Your task to perform on an android device: Find coffee shops on Maps Image 0: 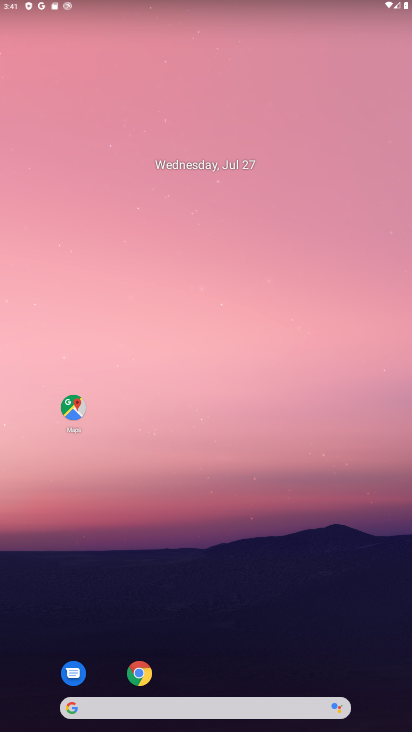
Step 0: click (69, 408)
Your task to perform on an android device: Find coffee shops on Maps Image 1: 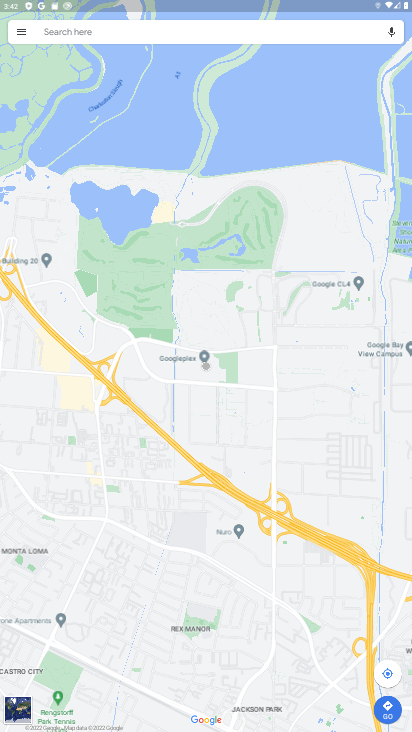
Step 1: click (156, 29)
Your task to perform on an android device: Find coffee shops on Maps Image 2: 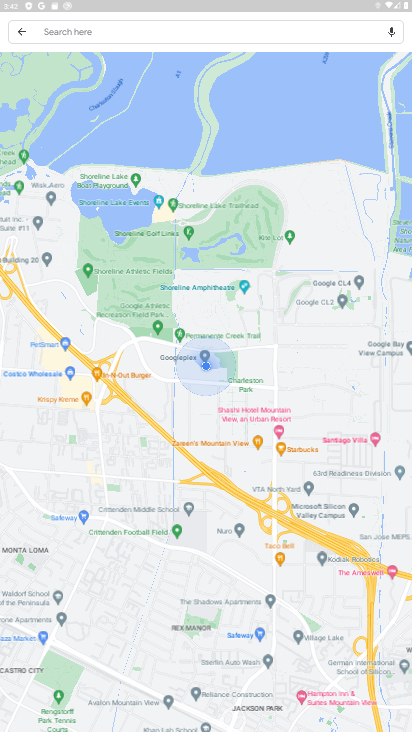
Step 2: click (156, 29)
Your task to perform on an android device: Find coffee shops on Maps Image 3: 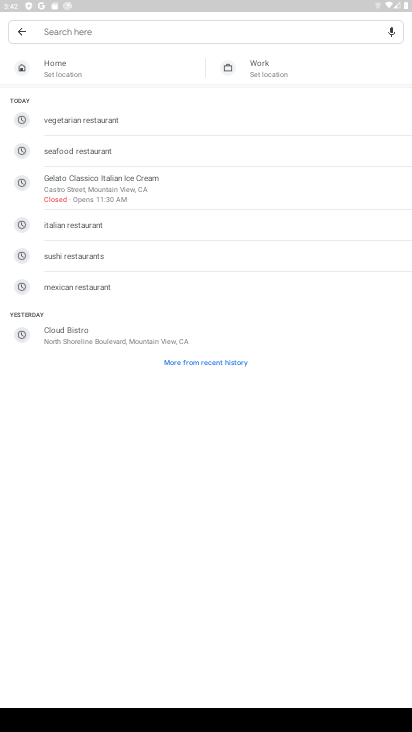
Step 3: type "coffee shops"
Your task to perform on an android device: Find coffee shops on Maps Image 4: 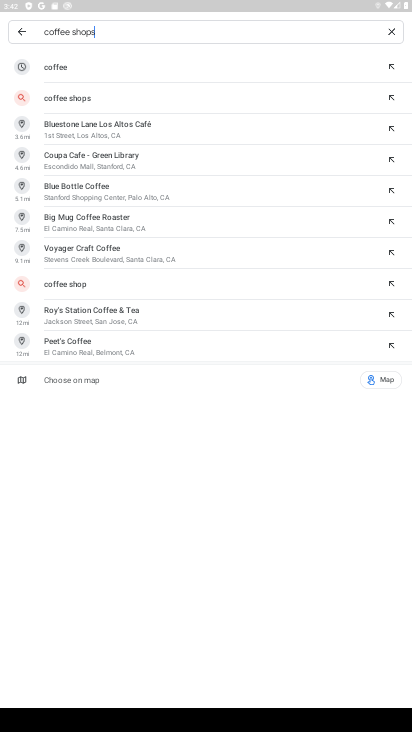
Step 4: click (194, 93)
Your task to perform on an android device: Find coffee shops on Maps Image 5: 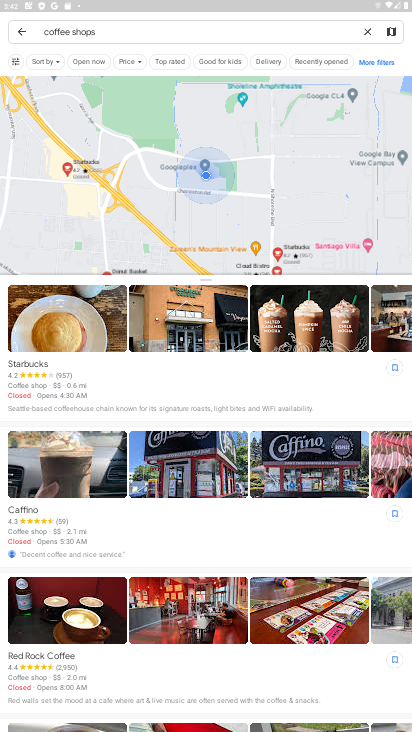
Step 5: task complete